Your task to perform on an android device: Open the map Image 0: 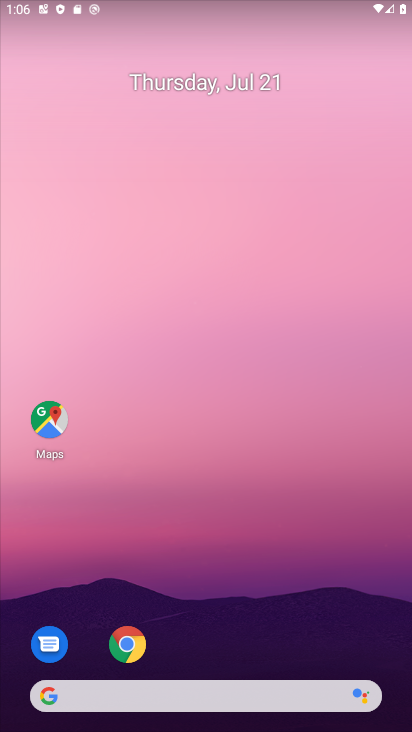
Step 0: drag from (180, 396) to (225, 77)
Your task to perform on an android device: Open the map Image 1: 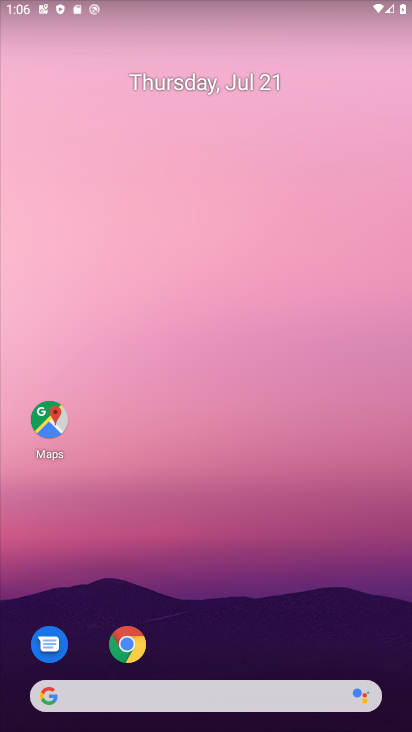
Step 1: click (45, 400)
Your task to perform on an android device: Open the map Image 2: 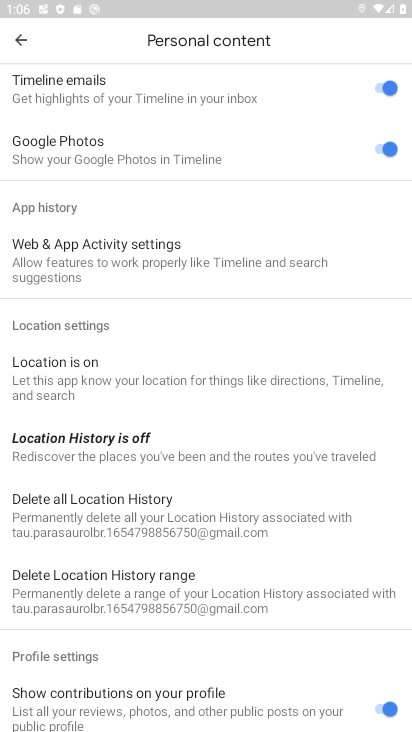
Step 2: click (21, 48)
Your task to perform on an android device: Open the map Image 3: 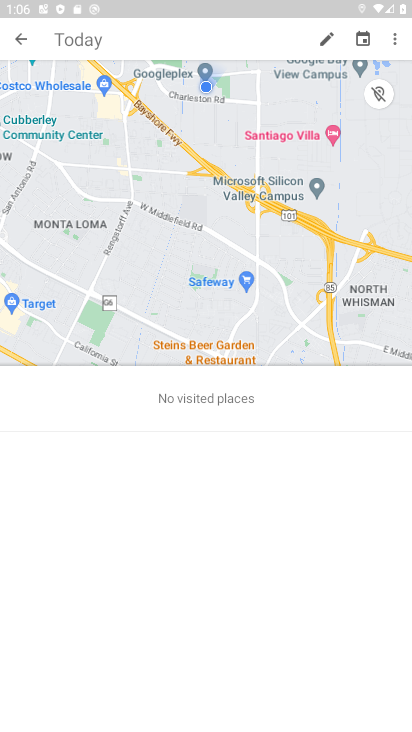
Step 3: task complete